Your task to perform on an android device: change the clock display to digital Image 0: 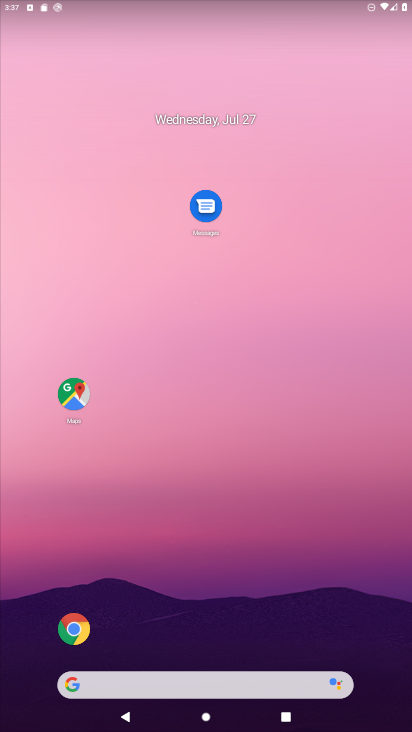
Step 0: drag from (212, 604) to (238, 74)
Your task to perform on an android device: change the clock display to digital Image 1: 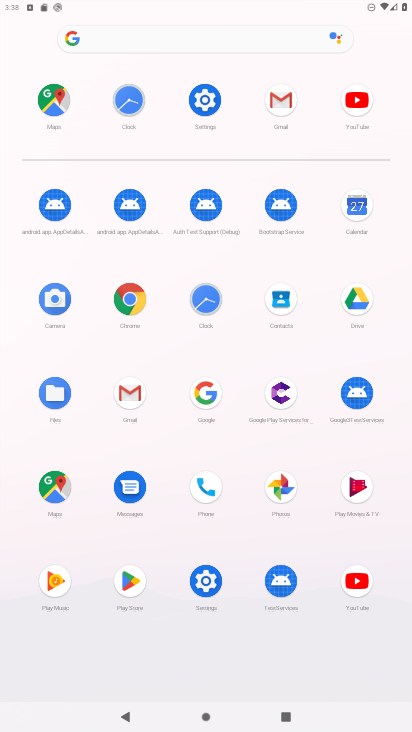
Step 1: click (115, 105)
Your task to perform on an android device: change the clock display to digital Image 2: 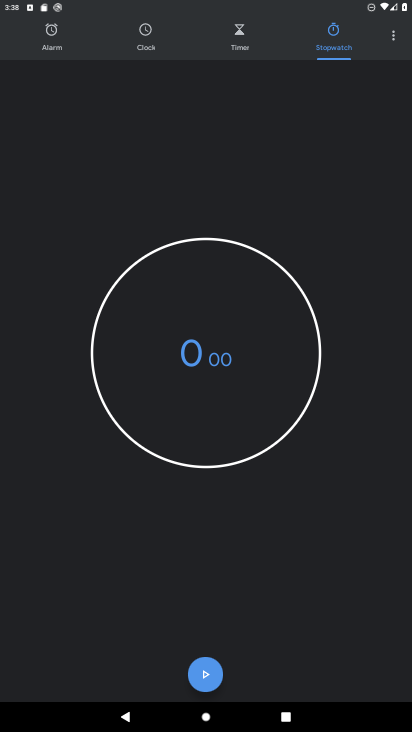
Step 2: click (402, 31)
Your task to perform on an android device: change the clock display to digital Image 3: 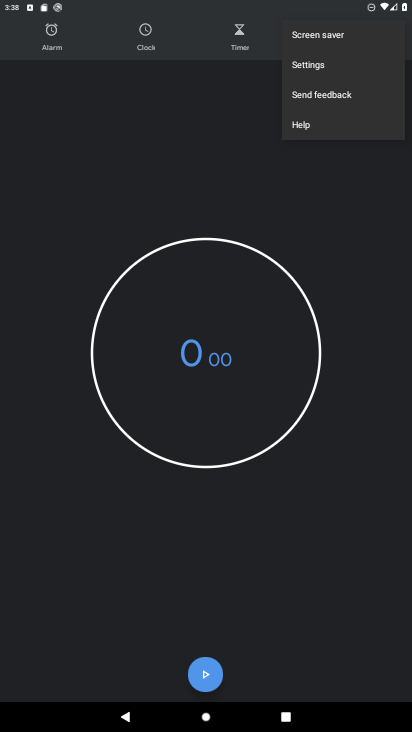
Step 3: click (308, 65)
Your task to perform on an android device: change the clock display to digital Image 4: 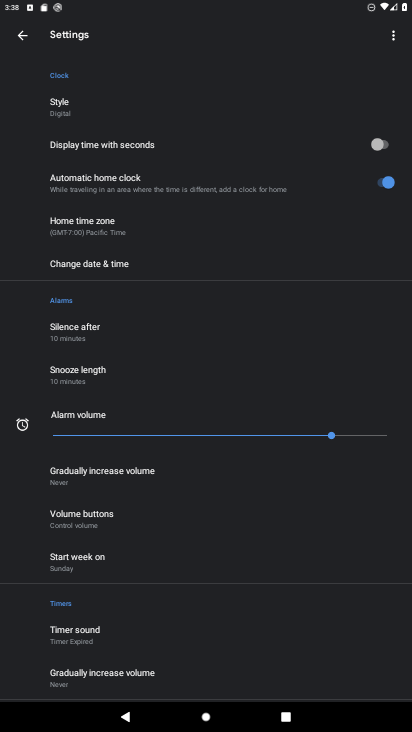
Step 4: click (78, 100)
Your task to perform on an android device: change the clock display to digital Image 5: 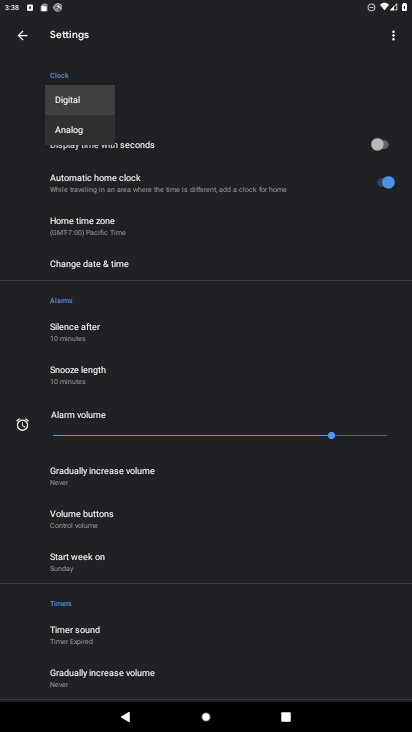
Step 5: task complete